Your task to perform on an android device: Check the news Image 0: 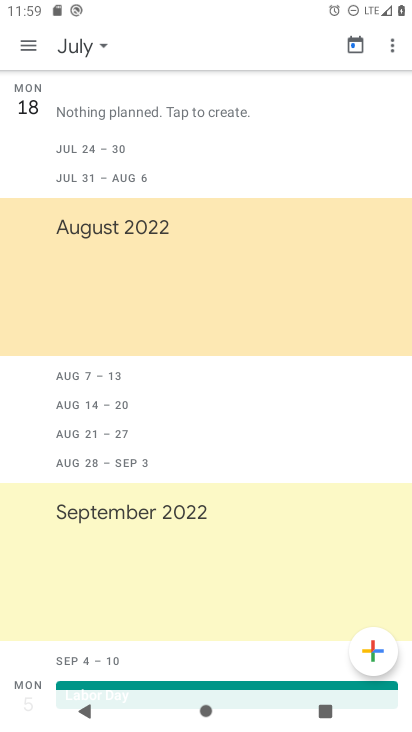
Step 0: press home button
Your task to perform on an android device: Check the news Image 1: 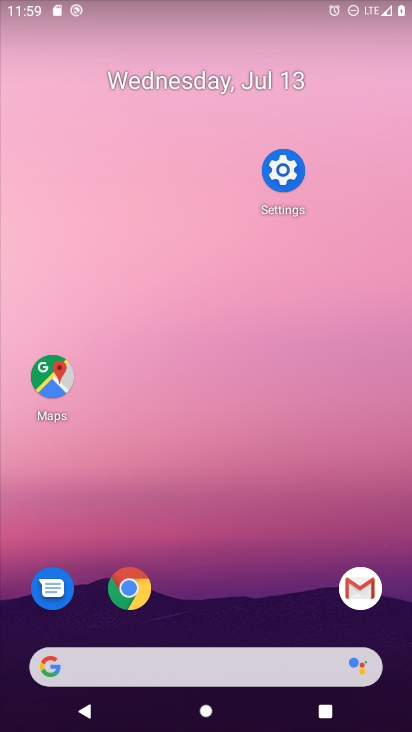
Step 1: click (178, 672)
Your task to perform on an android device: Check the news Image 2: 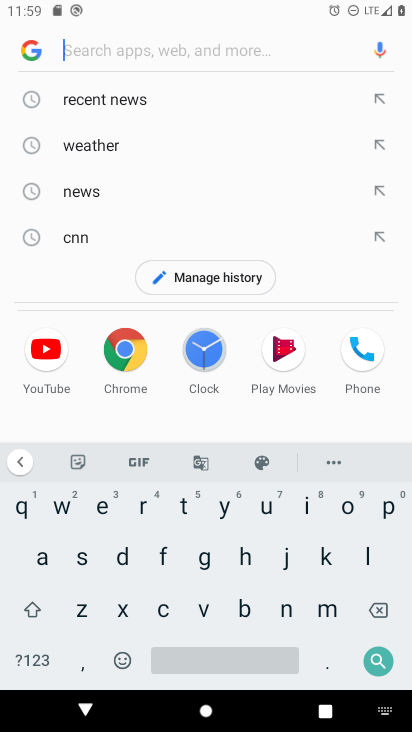
Step 2: click (112, 195)
Your task to perform on an android device: Check the news Image 3: 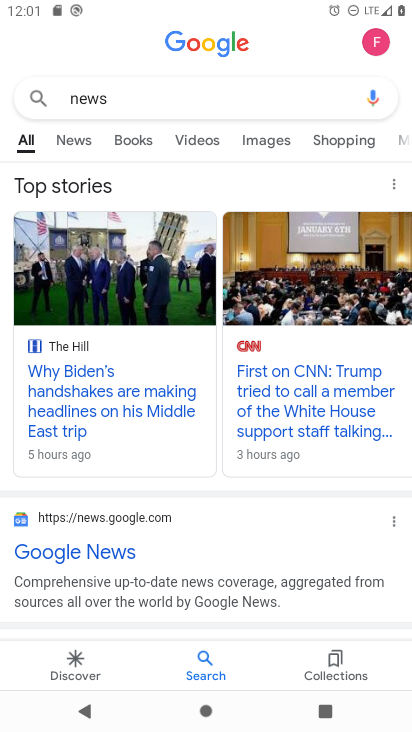
Step 3: task complete